Your task to perform on an android device: turn off translation in the chrome app Image 0: 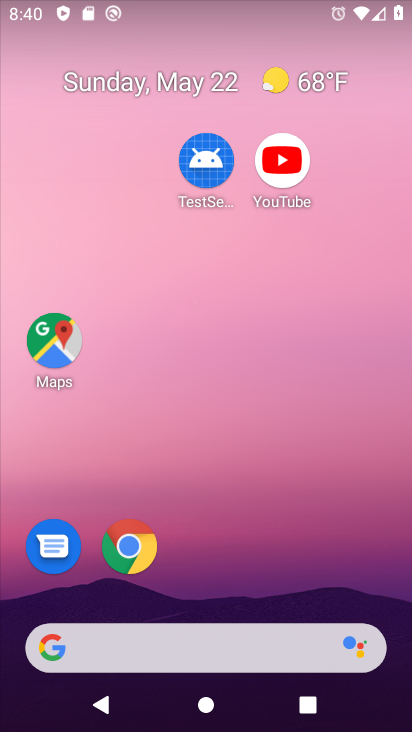
Step 0: drag from (255, 702) to (244, 282)
Your task to perform on an android device: turn off translation in the chrome app Image 1: 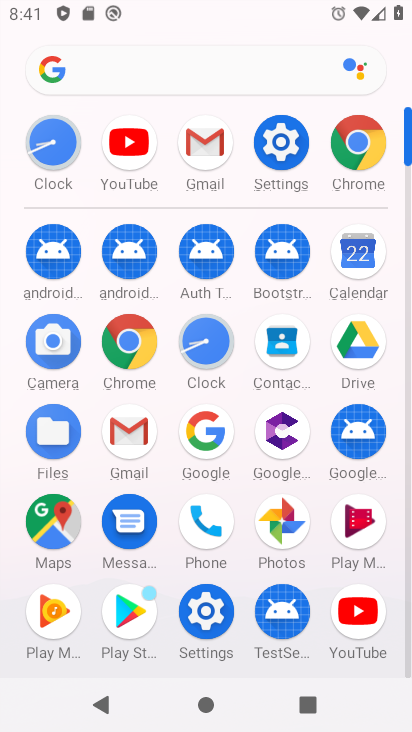
Step 1: click (353, 146)
Your task to perform on an android device: turn off translation in the chrome app Image 2: 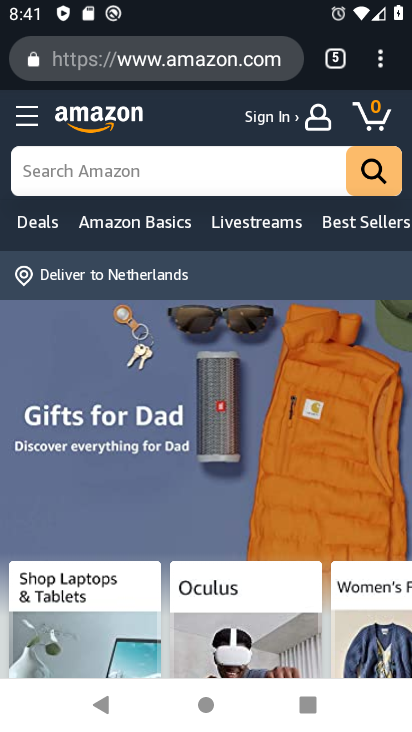
Step 2: drag from (379, 64) to (159, 572)
Your task to perform on an android device: turn off translation in the chrome app Image 3: 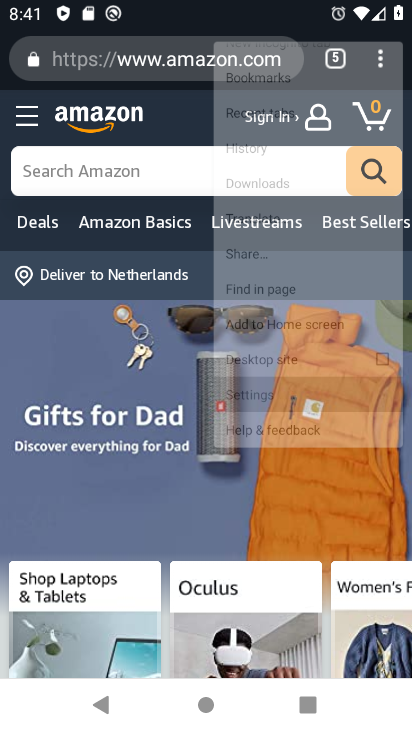
Step 3: click (161, 571)
Your task to perform on an android device: turn off translation in the chrome app Image 4: 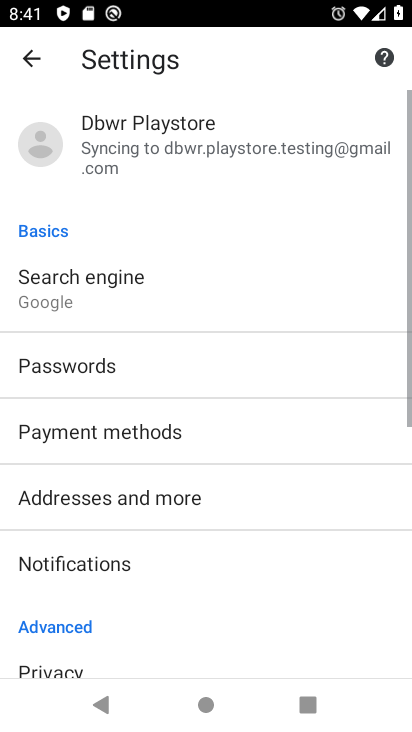
Step 4: drag from (129, 523) to (77, 180)
Your task to perform on an android device: turn off translation in the chrome app Image 5: 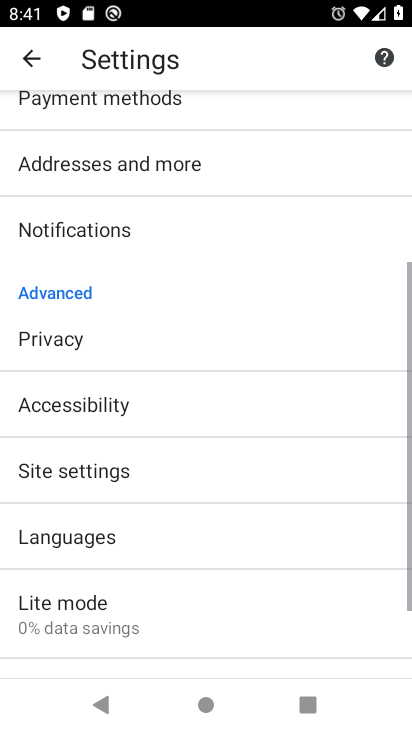
Step 5: drag from (117, 441) to (95, 155)
Your task to perform on an android device: turn off translation in the chrome app Image 6: 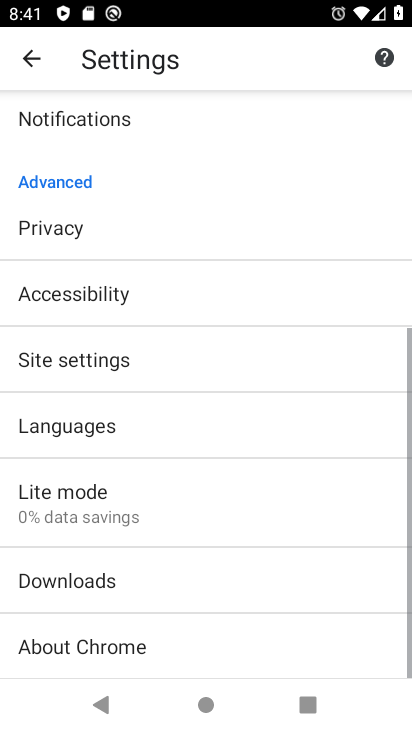
Step 6: drag from (199, 413) to (196, 149)
Your task to perform on an android device: turn off translation in the chrome app Image 7: 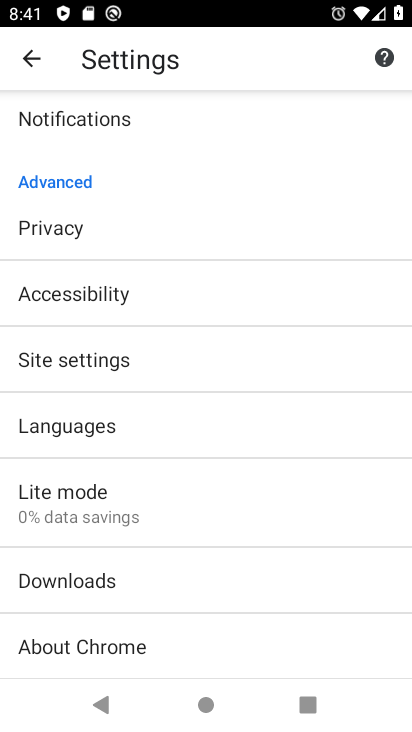
Step 7: click (63, 419)
Your task to perform on an android device: turn off translation in the chrome app Image 8: 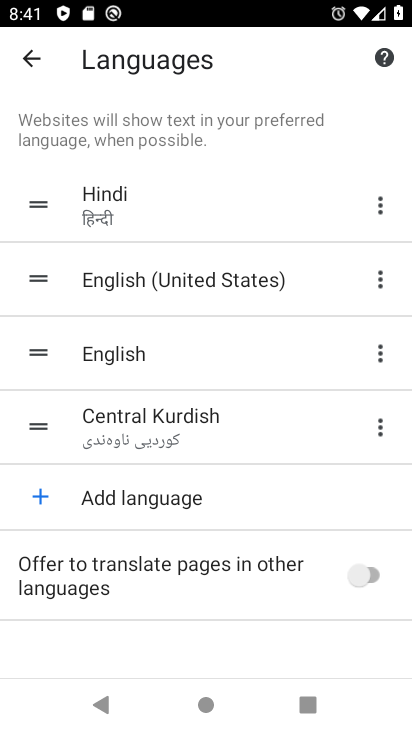
Step 8: task complete